Your task to perform on an android device: Go to eBay Image 0: 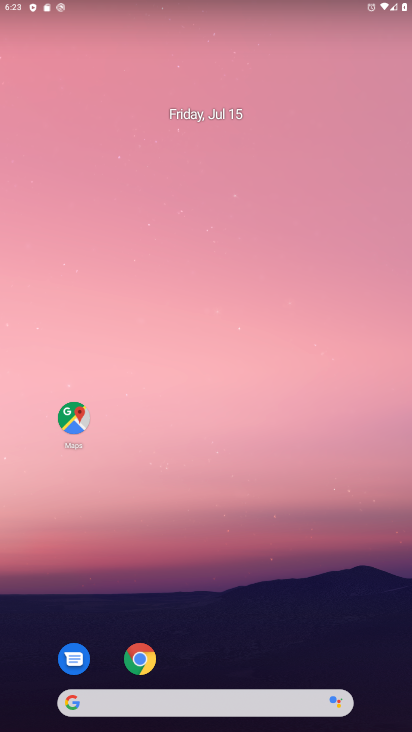
Step 0: click (142, 659)
Your task to perform on an android device: Go to eBay Image 1: 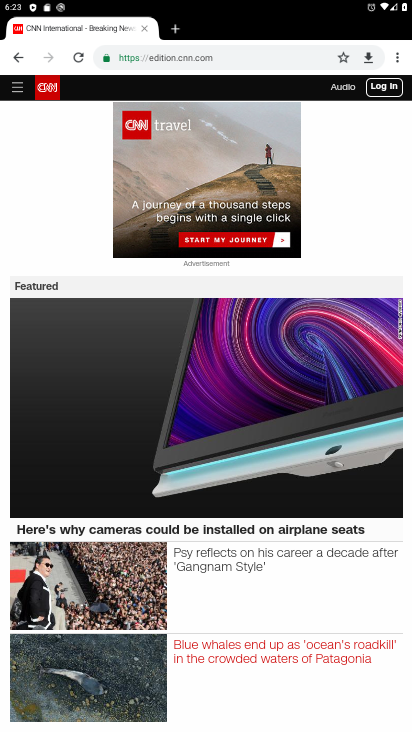
Step 1: click (244, 54)
Your task to perform on an android device: Go to eBay Image 2: 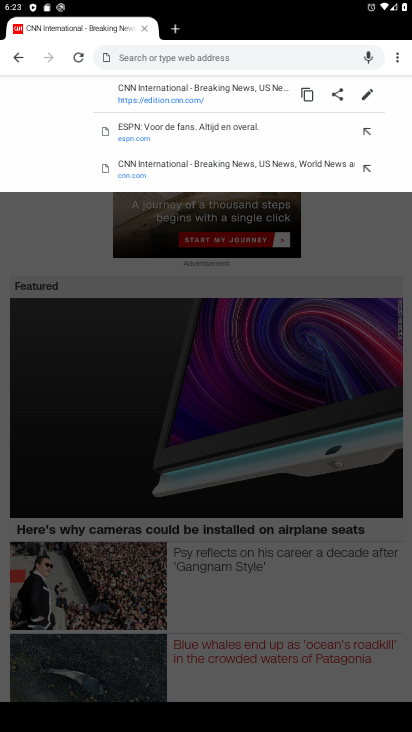
Step 2: type "eBay"
Your task to perform on an android device: Go to eBay Image 3: 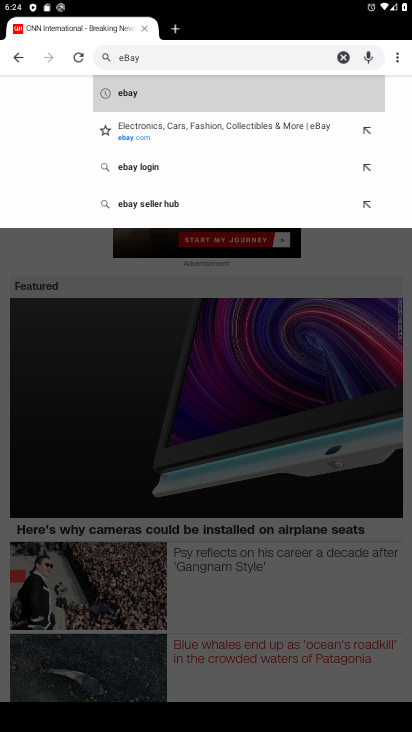
Step 3: click (133, 89)
Your task to perform on an android device: Go to eBay Image 4: 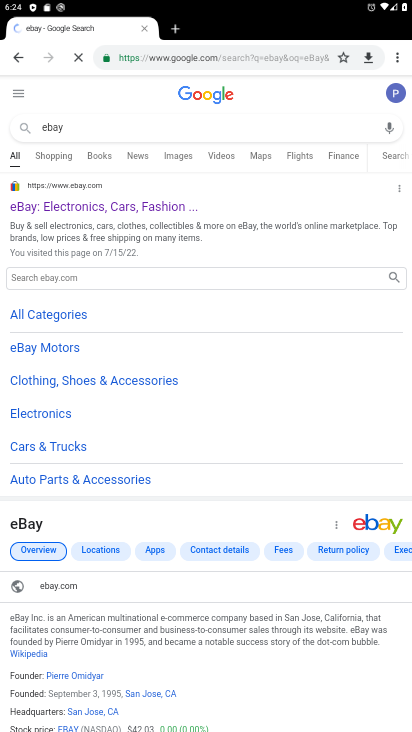
Step 4: click (96, 205)
Your task to perform on an android device: Go to eBay Image 5: 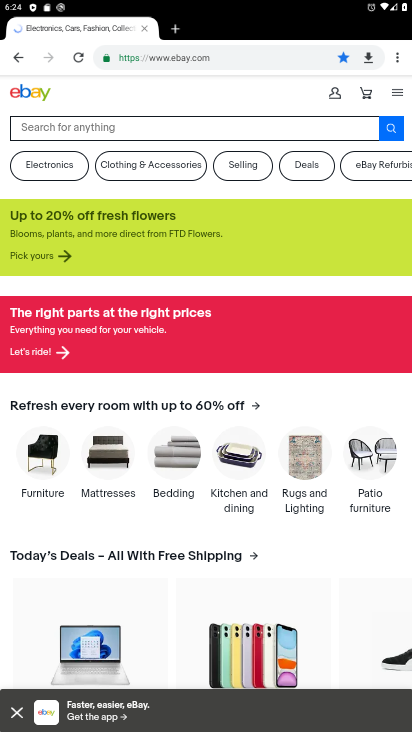
Step 5: task complete